Your task to perform on an android device: Go to Android settings Image 0: 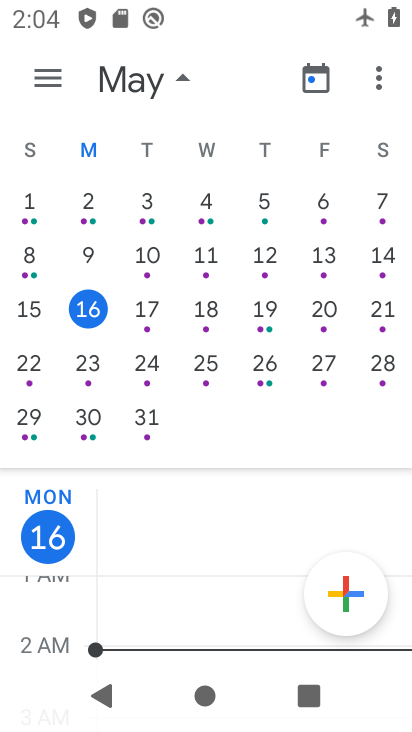
Step 0: press home button
Your task to perform on an android device: Go to Android settings Image 1: 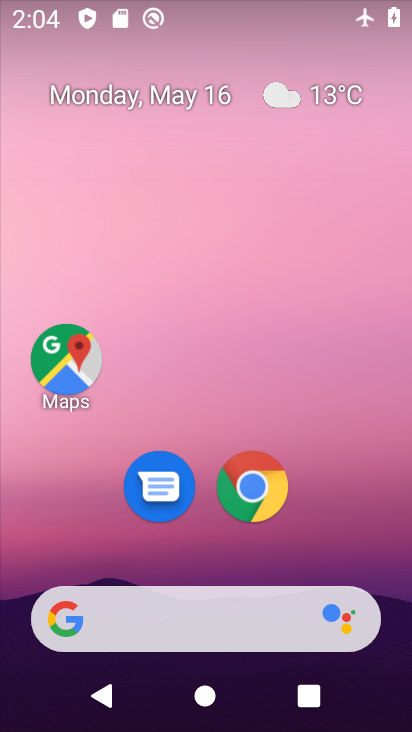
Step 1: drag from (367, 388) to (305, 42)
Your task to perform on an android device: Go to Android settings Image 2: 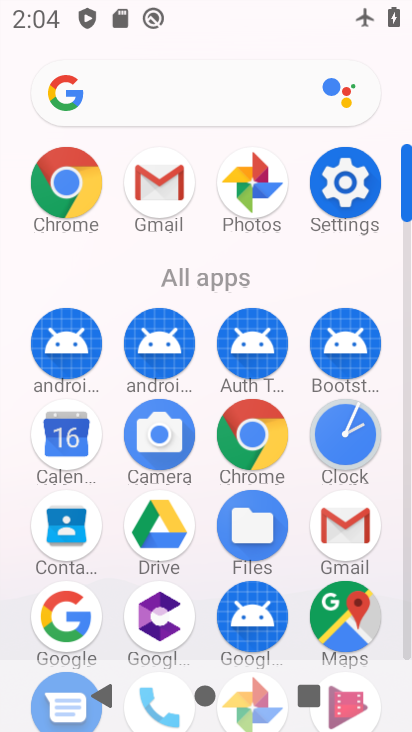
Step 2: click (351, 172)
Your task to perform on an android device: Go to Android settings Image 3: 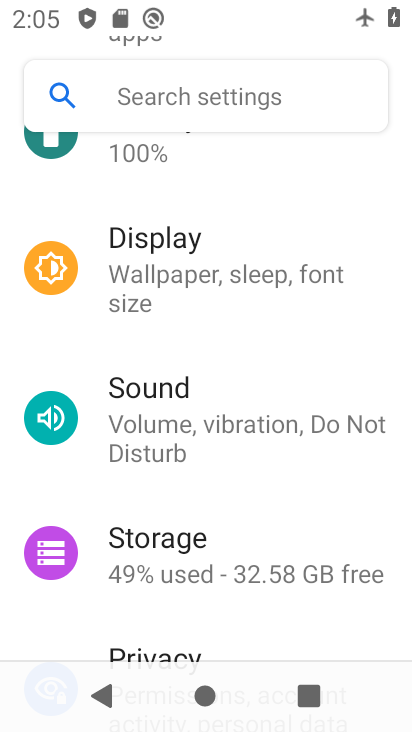
Step 3: task complete